Your task to perform on an android device: Show me recent news Image 0: 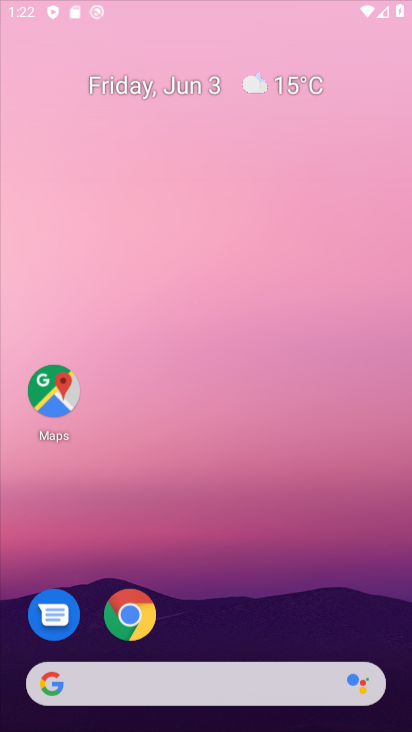
Step 0: click (160, 251)
Your task to perform on an android device: Show me recent news Image 1: 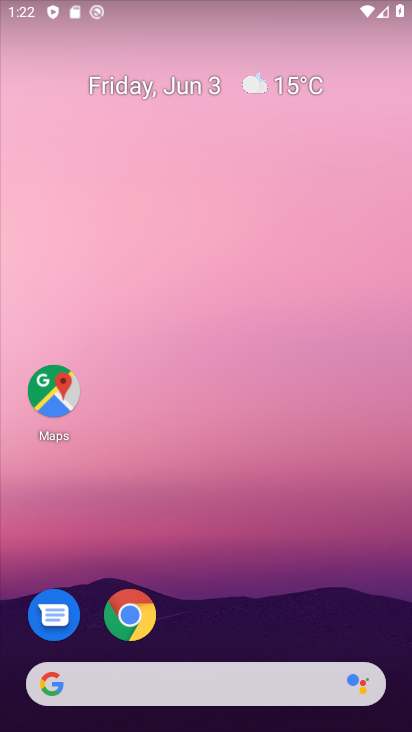
Step 1: drag from (258, 693) to (298, 310)
Your task to perform on an android device: Show me recent news Image 2: 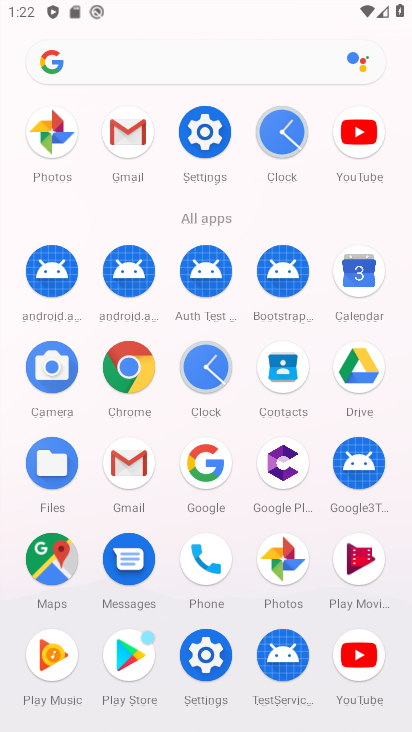
Step 2: click (164, 35)
Your task to perform on an android device: Show me recent news Image 3: 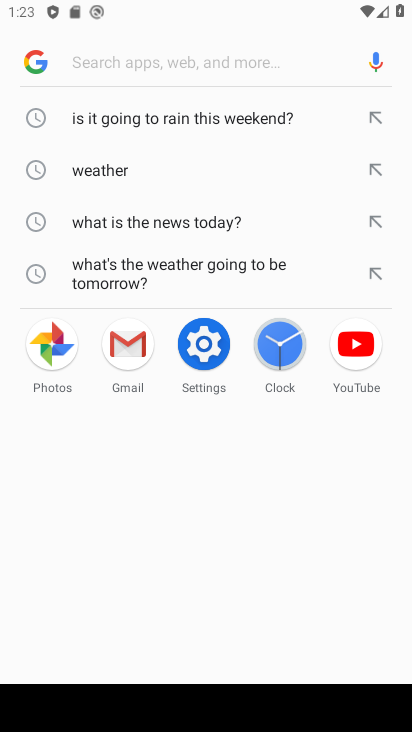
Step 3: type "recent news"
Your task to perform on an android device: Show me recent news Image 4: 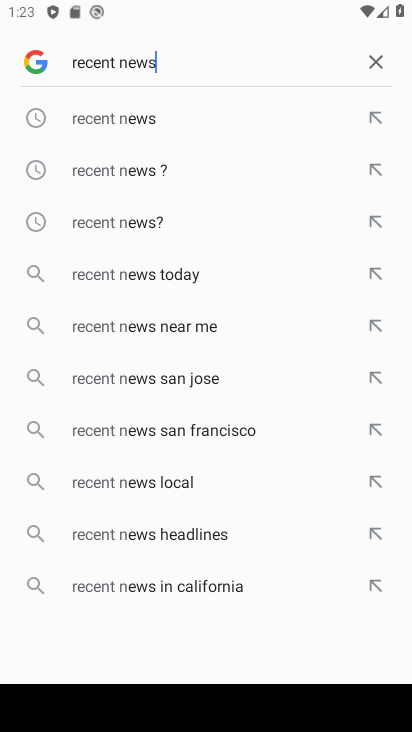
Step 4: type ""
Your task to perform on an android device: Show me recent news Image 5: 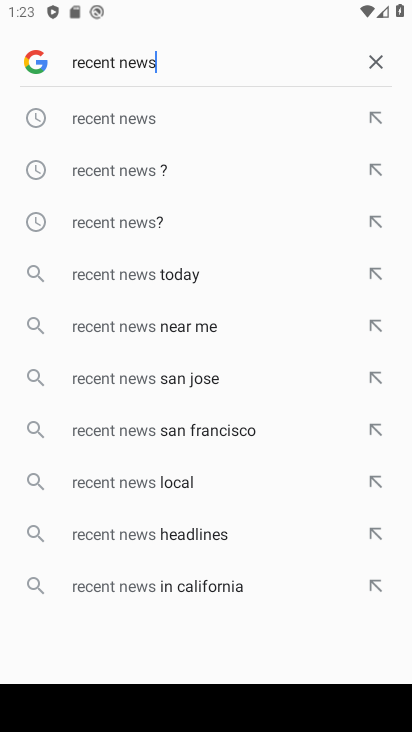
Step 5: click (147, 132)
Your task to perform on an android device: Show me recent news Image 6: 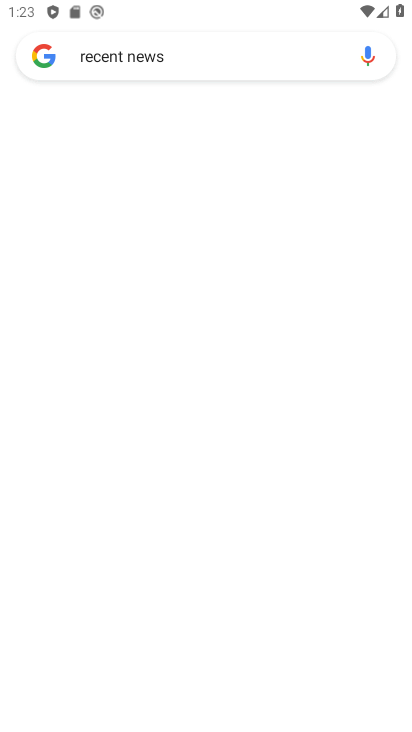
Step 6: task complete